Your task to perform on an android device: turn on airplane mode Image 0: 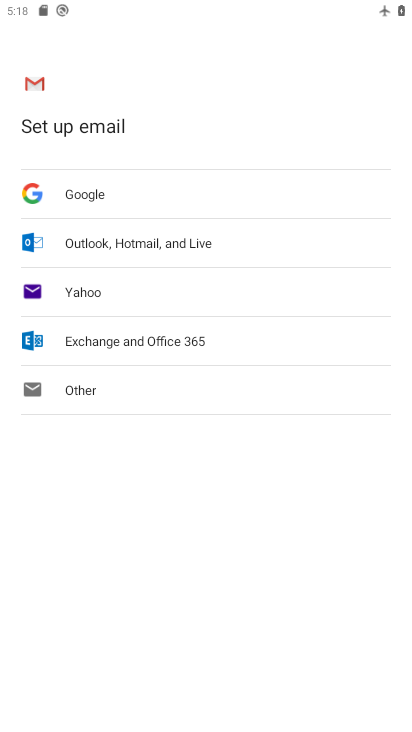
Step 0: drag from (224, 27) to (197, 552)
Your task to perform on an android device: turn on airplane mode Image 1: 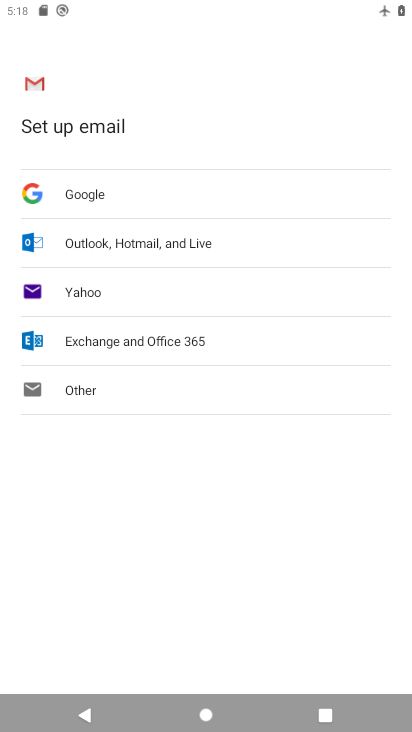
Step 1: task complete